Your task to perform on an android device: Open Yahoo.com Image 0: 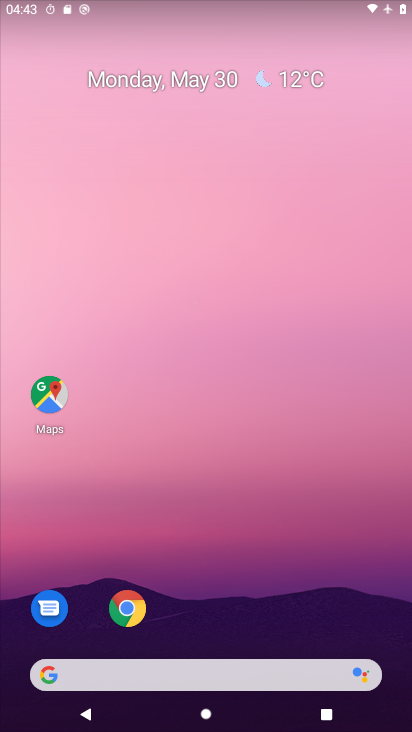
Step 0: click (136, 607)
Your task to perform on an android device: Open Yahoo.com Image 1: 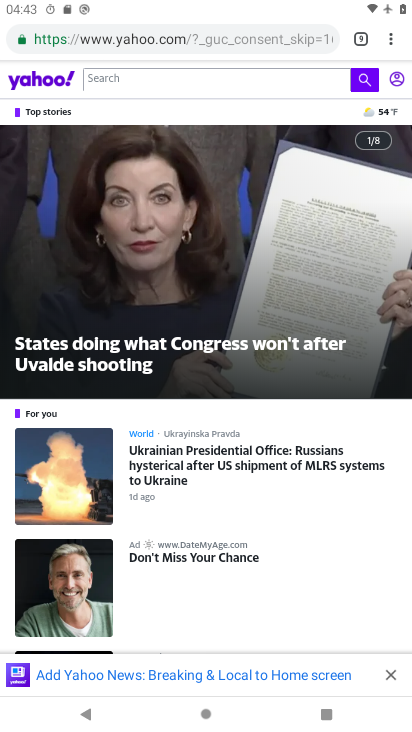
Step 1: task complete